Your task to perform on an android device: open a new tab in the chrome app Image 0: 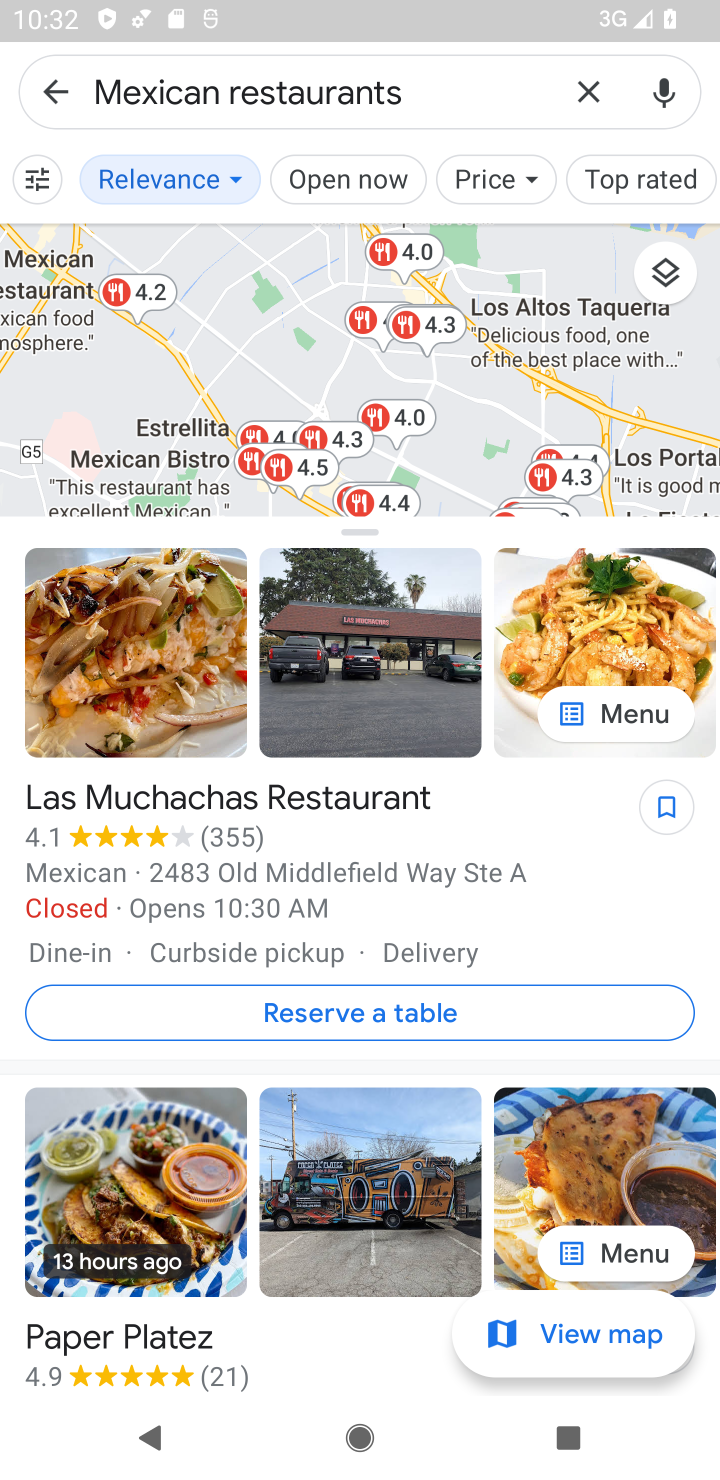
Step 0: task complete